Your task to perform on an android device: turn off sleep mode Image 0: 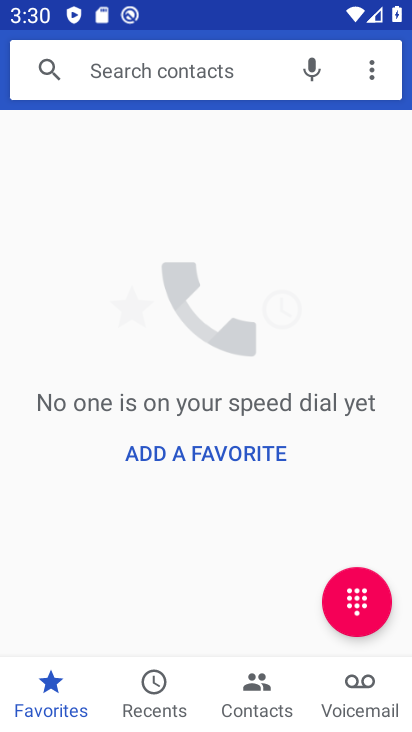
Step 0: press back button
Your task to perform on an android device: turn off sleep mode Image 1: 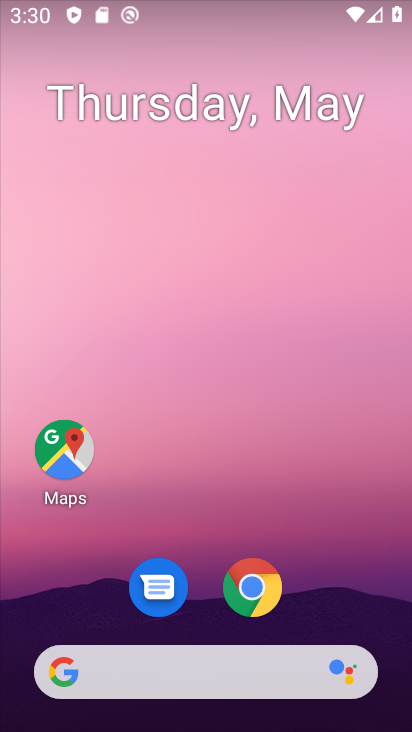
Step 1: drag from (334, 492) to (289, 61)
Your task to perform on an android device: turn off sleep mode Image 2: 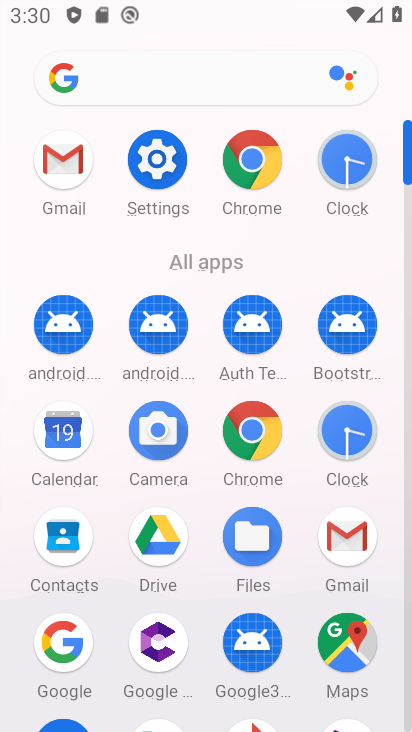
Step 2: drag from (14, 621) to (24, 259)
Your task to perform on an android device: turn off sleep mode Image 3: 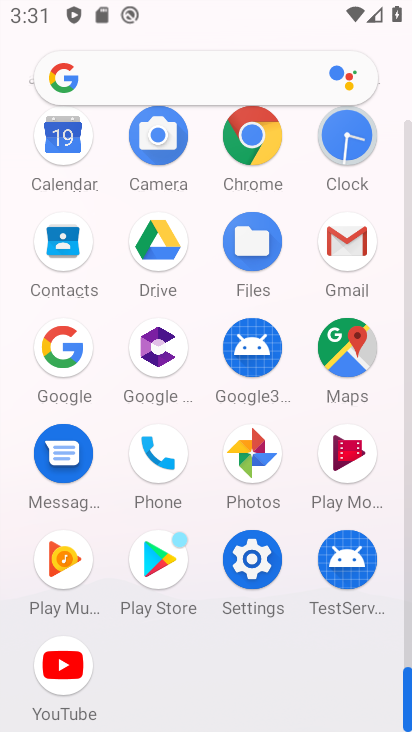
Step 3: click (251, 553)
Your task to perform on an android device: turn off sleep mode Image 4: 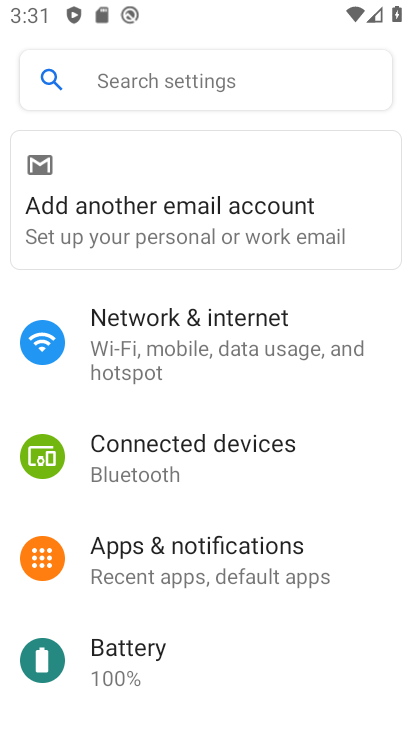
Step 4: drag from (289, 585) to (316, 192)
Your task to perform on an android device: turn off sleep mode Image 5: 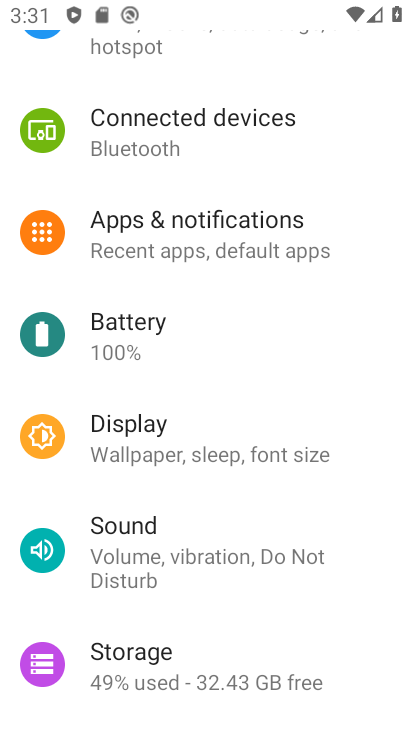
Step 5: drag from (275, 566) to (290, 158)
Your task to perform on an android device: turn off sleep mode Image 6: 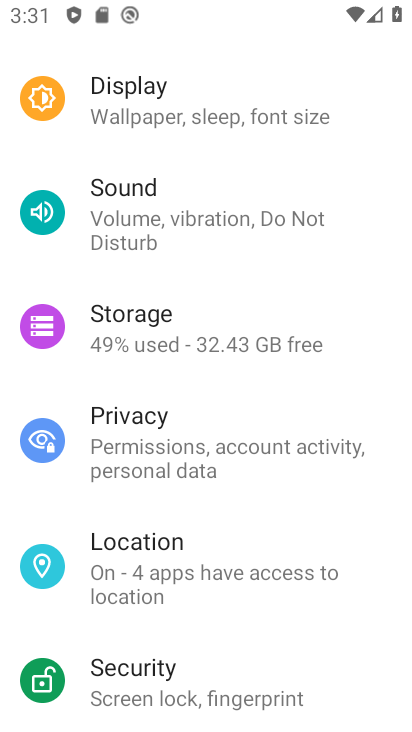
Step 6: drag from (285, 162) to (292, 602)
Your task to perform on an android device: turn off sleep mode Image 7: 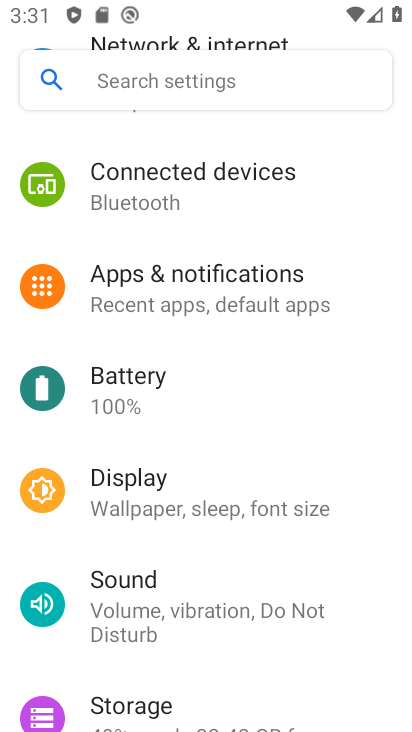
Step 7: drag from (289, 188) to (279, 626)
Your task to perform on an android device: turn off sleep mode Image 8: 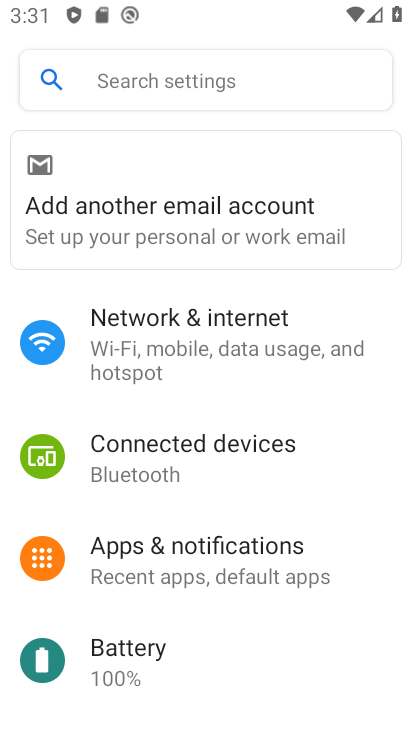
Step 8: drag from (285, 567) to (303, 284)
Your task to perform on an android device: turn off sleep mode Image 9: 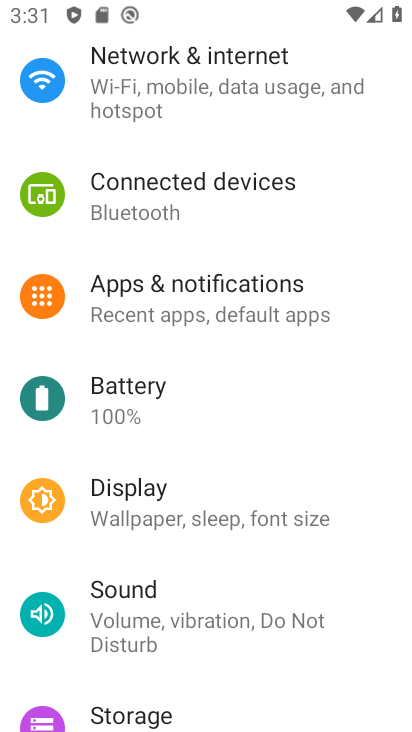
Step 9: click (251, 497)
Your task to perform on an android device: turn off sleep mode Image 10: 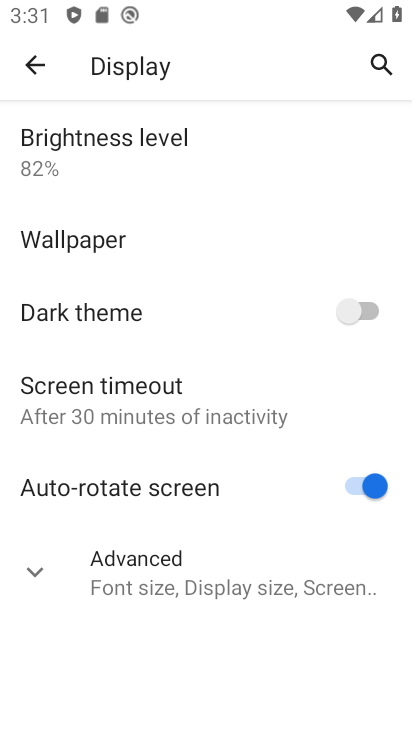
Step 10: click (67, 577)
Your task to perform on an android device: turn off sleep mode Image 11: 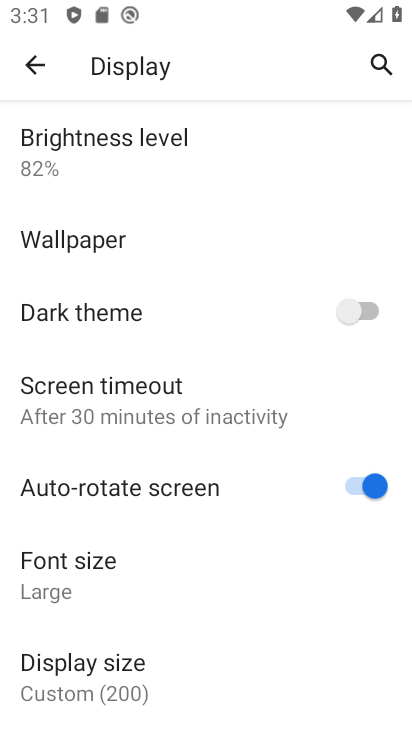
Step 11: task complete